Your task to perform on an android device: open wifi settings Image 0: 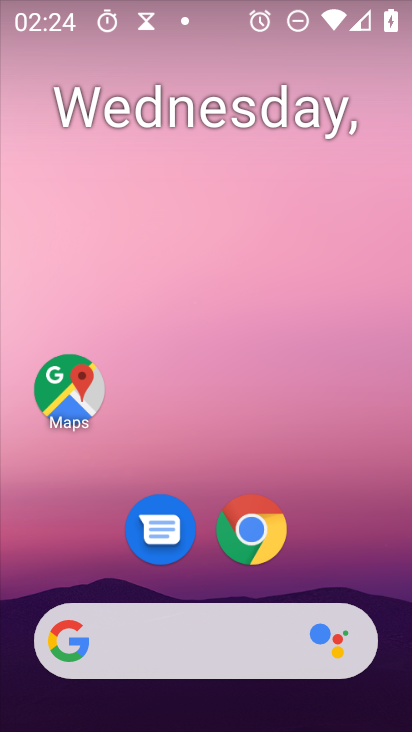
Step 0: drag from (300, 675) to (306, 30)
Your task to perform on an android device: open wifi settings Image 1: 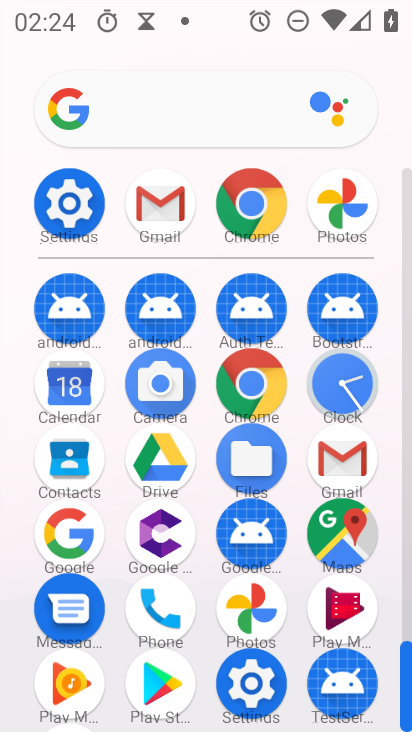
Step 1: click (75, 216)
Your task to perform on an android device: open wifi settings Image 2: 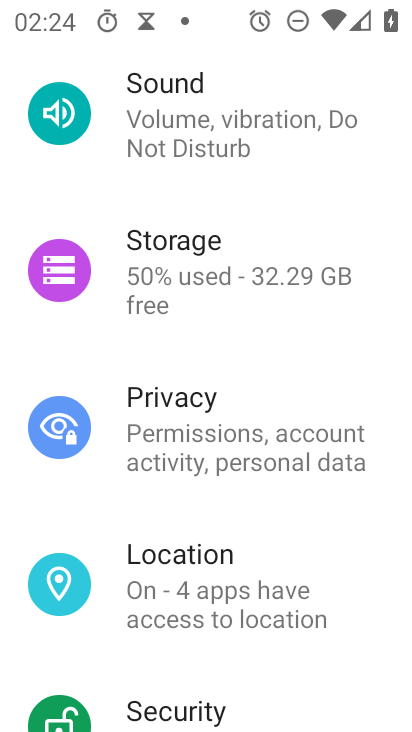
Step 2: drag from (183, 165) to (243, 719)
Your task to perform on an android device: open wifi settings Image 3: 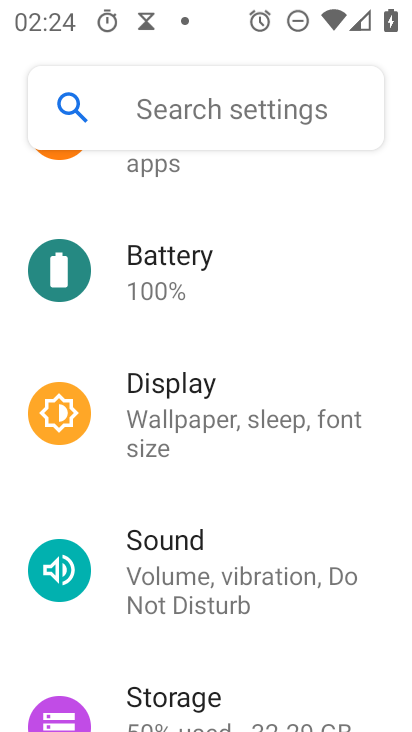
Step 3: drag from (269, 371) to (202, 712)
Your task to perform on an android device: open wifi settings Image 4: 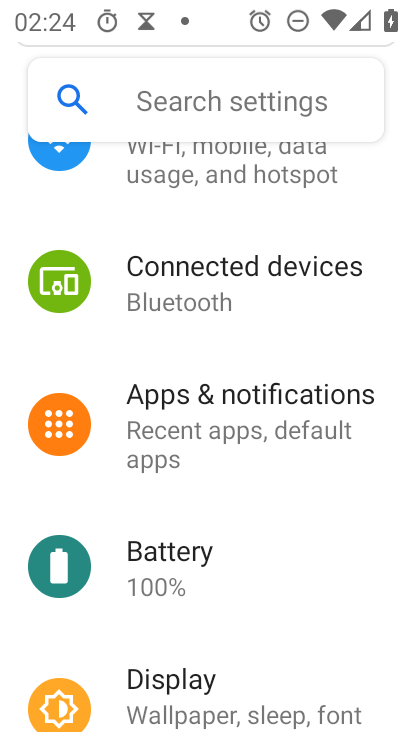
Step 4: drag from (240, 271) to (348, 731)
Your task to perform on an android device: open wifi settings Image 5: 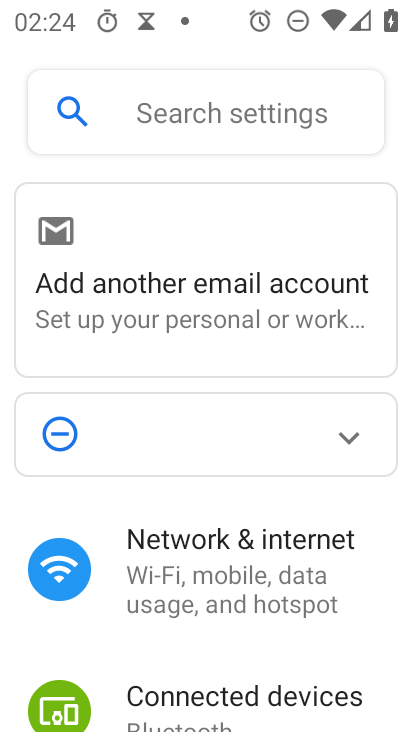
Step 5: click (211, 574)
Your task to perform on an android device: open wifi settings Image 6: 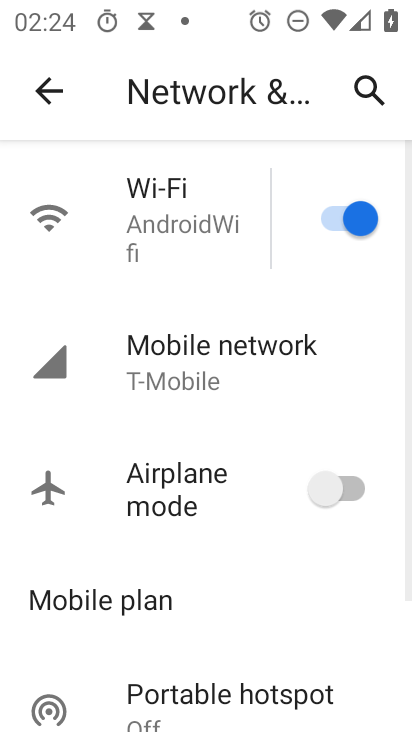
Step 6: click (174, 207)
Your task to perform on an android device: open wifi settings Image 7: 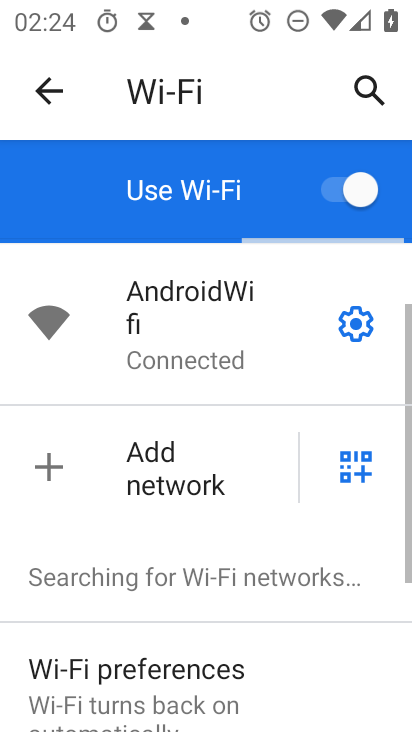
Step 7: task complete